Your task to perform on an android device: turn off translation in the chrome app Image 0: 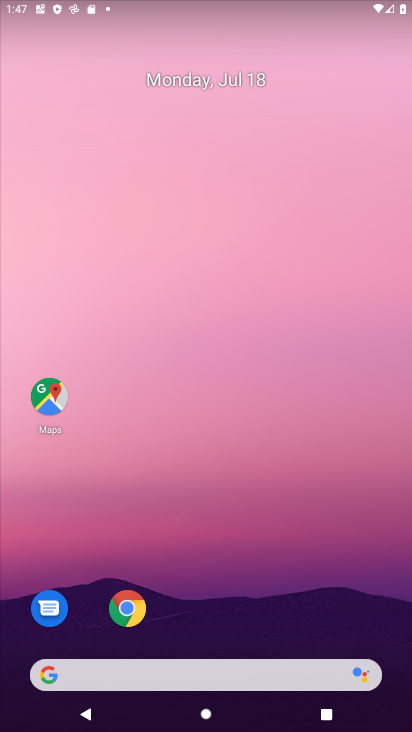
Step 0: drag from (319, 615) to (30, 192)
Your task to perform on an android device: turn off translation in the chrome app Image 1: 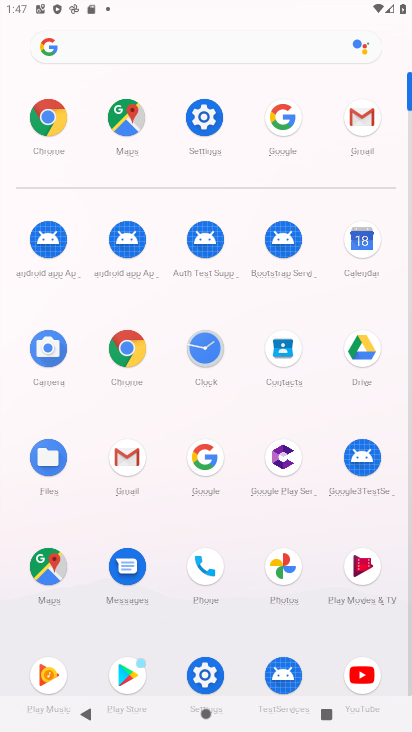
Step 1: click (120, 395)
Your task to perform on an android device: turn off translation in the chrome app Image 2: 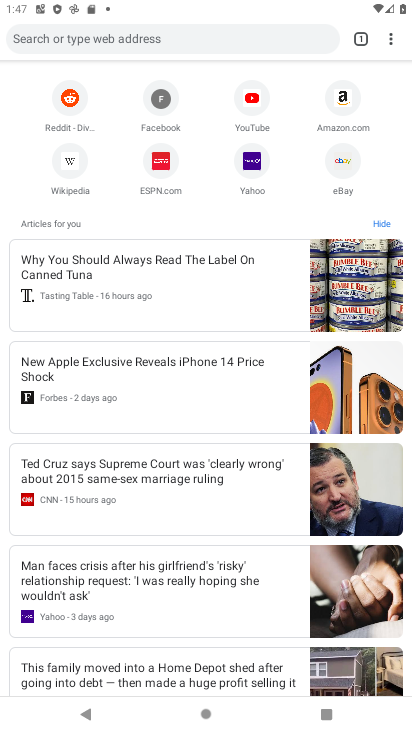
Step 2: click (390, 39)
Your task to perform on an android device: turn off translation in the chrome app Image 3: 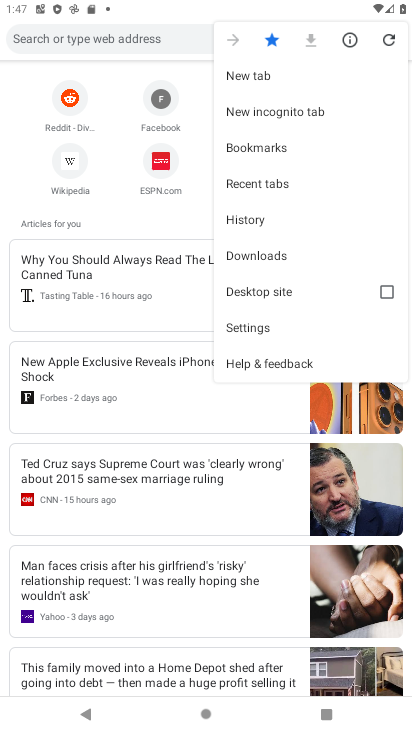
Step 3: click (249, 333)
Your task to perform on an android device: turn off translation in the chrome app Image 4: 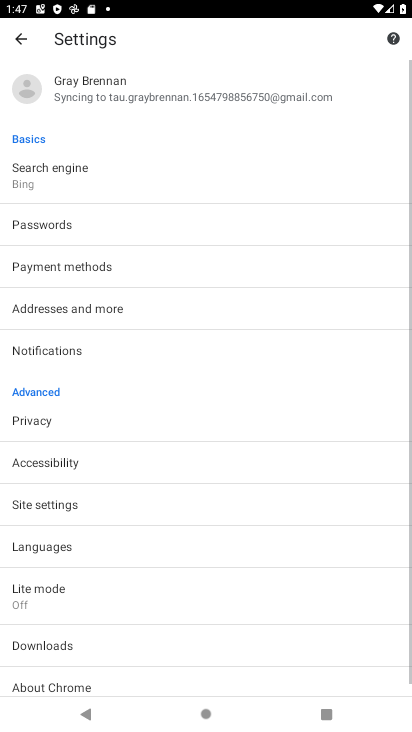
Step 4: click (83, 539)
Your task to perform on an android device: turn off translation in the chrome app Image 5: 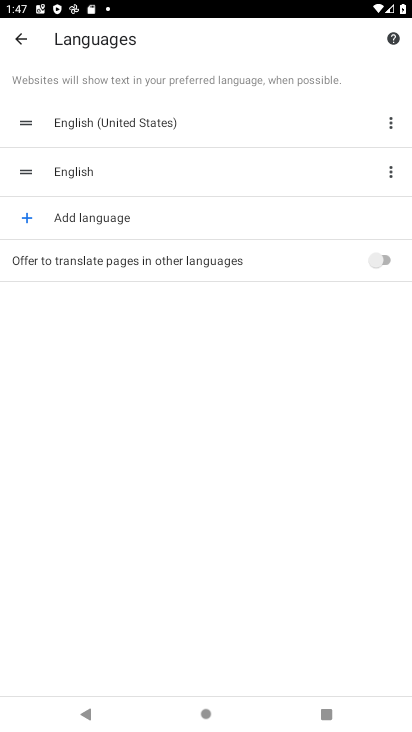
Step 5: click (347, 253)
Your task to perform on an android device: turn off translation in the chrome app Image 6: 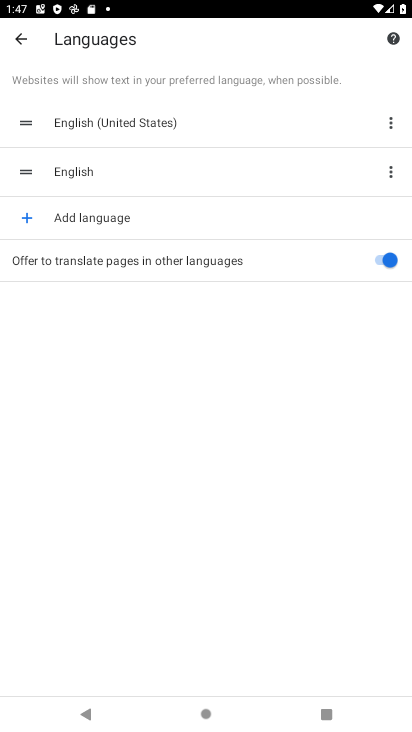
Step 6: click (348, 253)
Your task to perform on an android device: turn off translation in the chrome app Image 7: 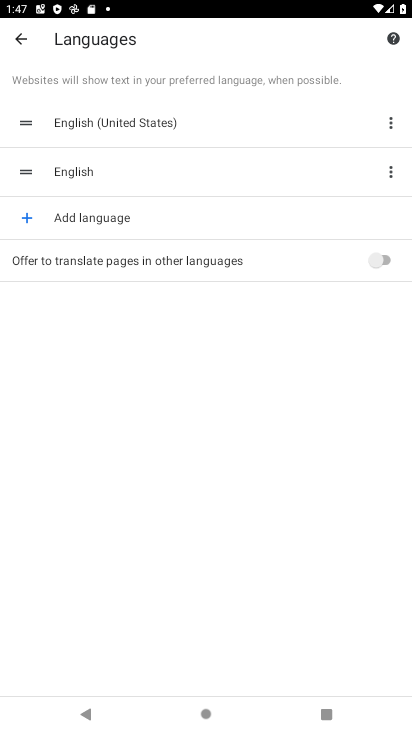
Step 7: task complete